Your task to perform on an android device: turn off translation in the chrome app Image 0: 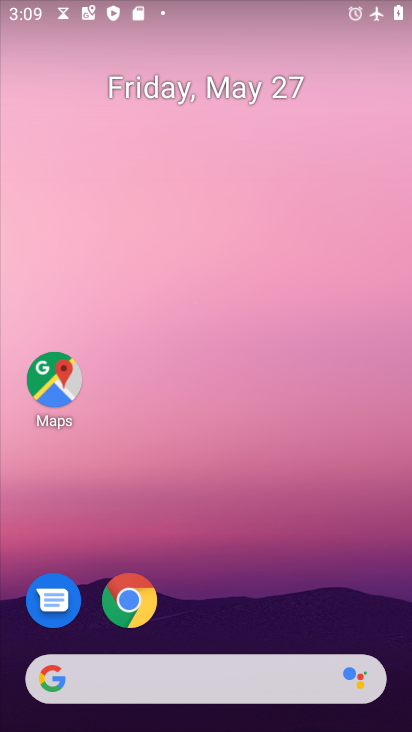
Step 0: drag from (252, 383) to (181, 0)
Your task to perform on an android device: turn off translation in the chrome app Image 1: 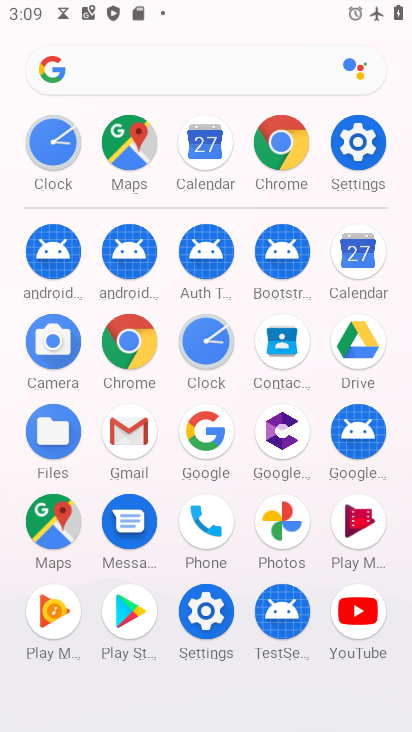
Step 1: drag from (4, 515) to (10, 238)
Your task to perform on an android device: turn off translation in the chrome app Image 2: 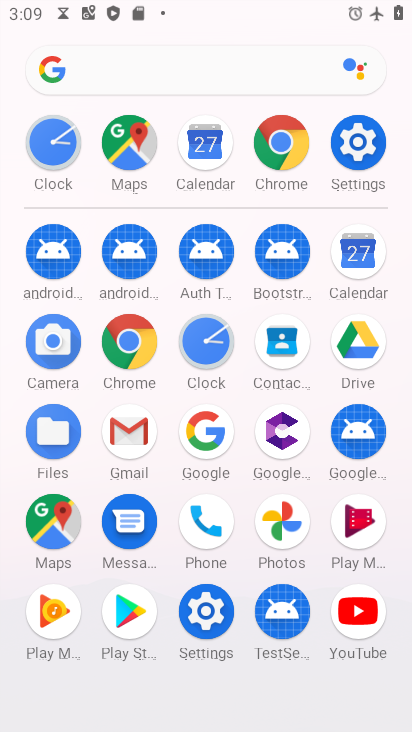
Step 2: drag from (9, 508) to (11, 250)
Your task to perform on an android device: turn off translation in the chrome app Image 3: 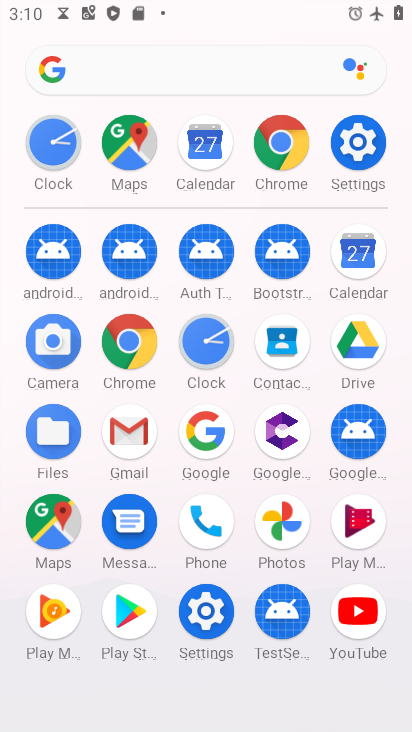
Step 3: click (130, 338)
Your task to perform on an android device: turn off translation in the chrome app Image 4: 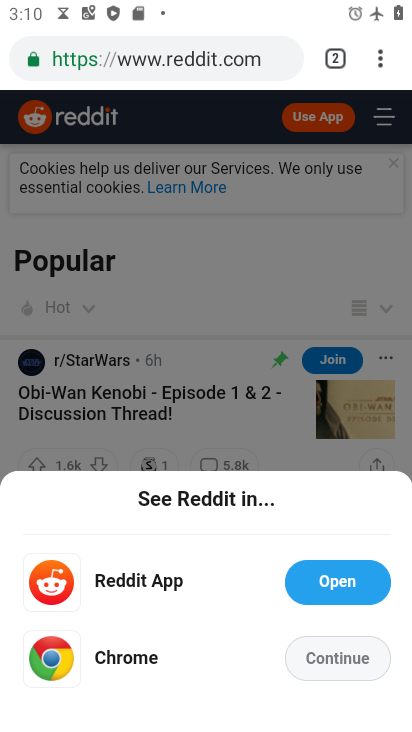
Step 4: drag from (384, 54) to (174, 640)
Your task to perform on an android device: turn off translation in the chrome app Image 5: 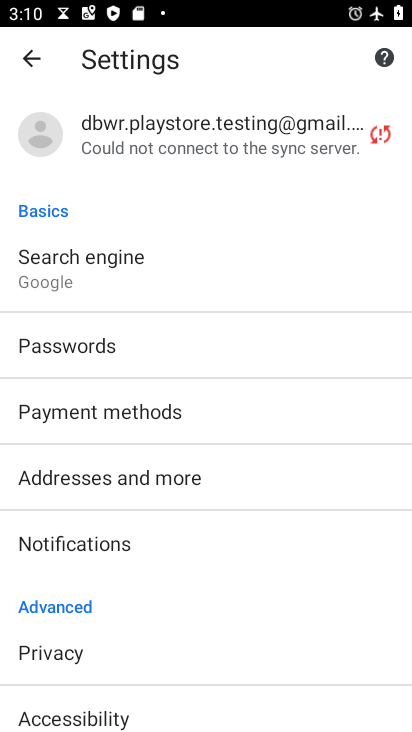
Step 5: drag from (211, 620) to (244, 176)
Your task to perform on an android device: turn off translation in the chrome app Image 6: 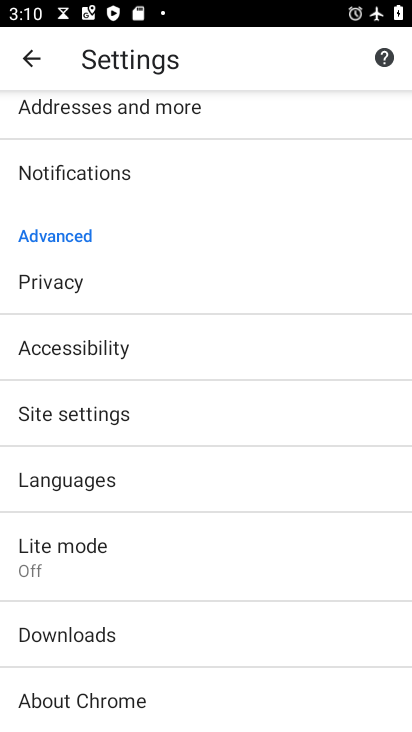
Step 6: click (129, 482)
Your task to perform on an android device: turn off translation in the chrome app Image 7: 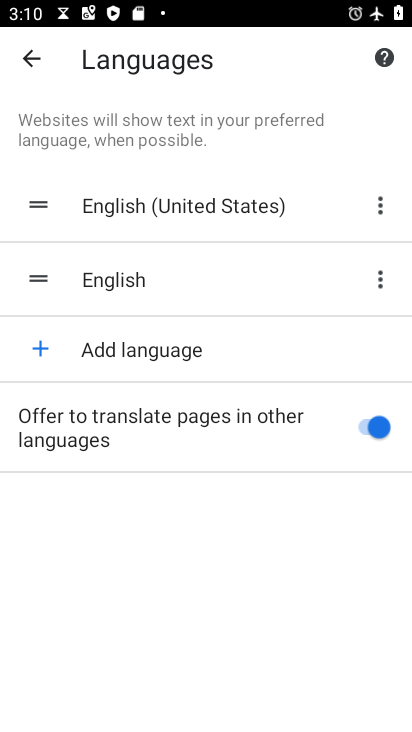
Step 7: click (356, 432)
Your task to perform on an android device: turn off translation in the chrome app Image 8: 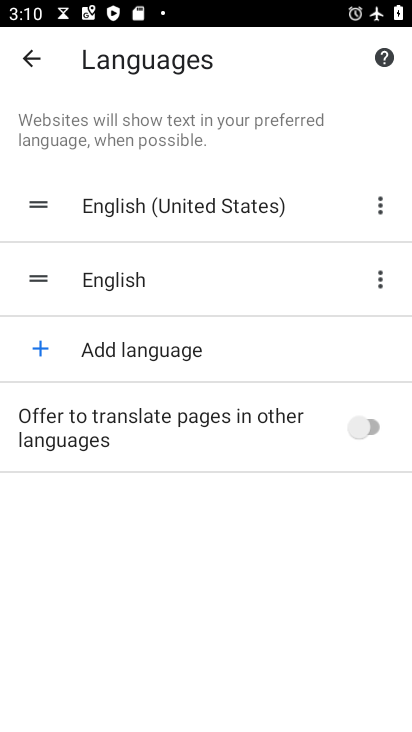
Step 8: task complete